Your task to perform on an android device: Open maps Image 0: 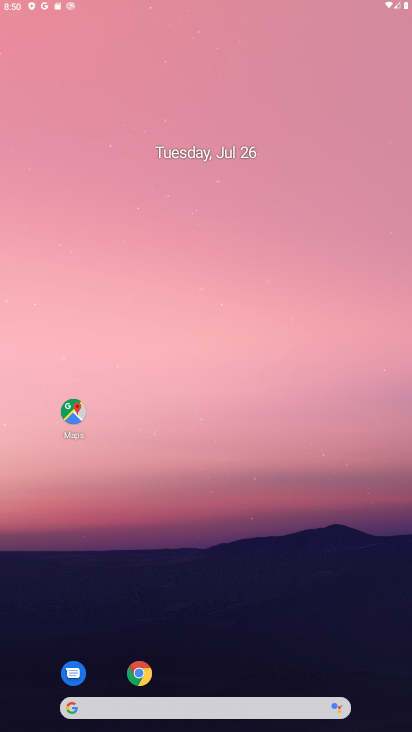
Step 0: press back button
Your task to perform on an android device: Open maps Image 1: 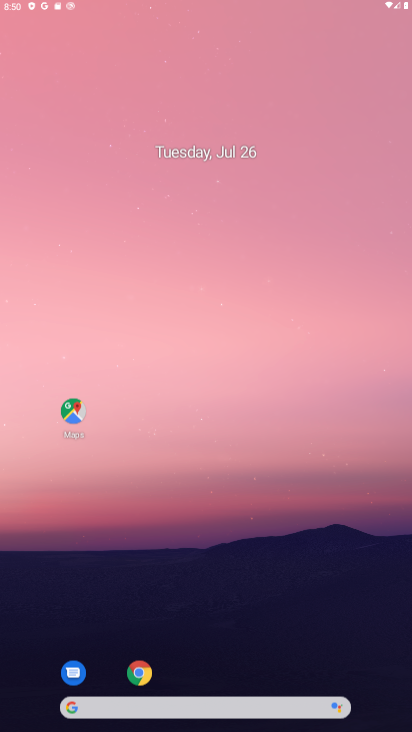
Step 1: drag from (229, 633) to (179, 86)
Your task to perform on an android device: Open maps Image 2: 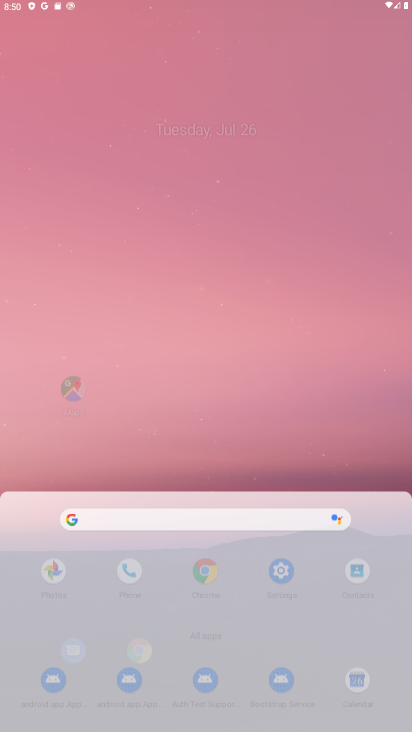
Step 2: drag from (265, 557) to (267, 185)
Your task to perform on an android device: Open maps Image 3: 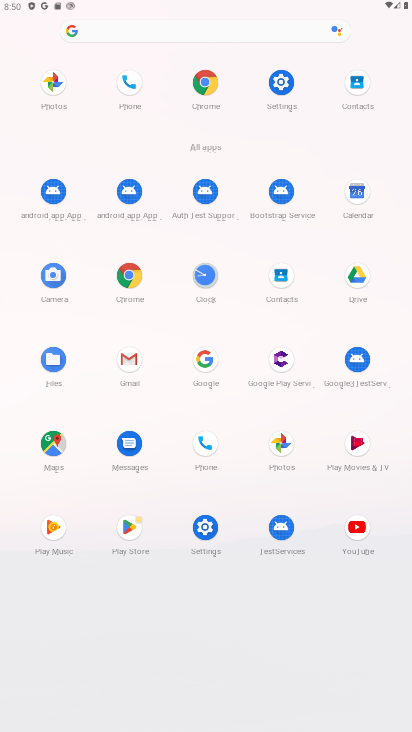
Step 3: click (46, 438)
Your task to perform on an android device: Open maps Image 4: 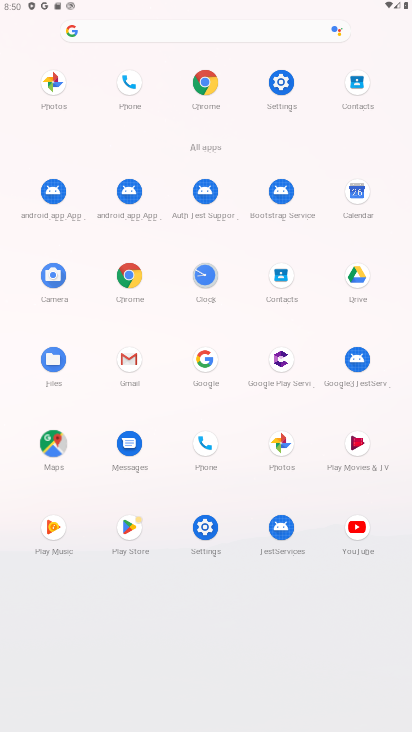
Step 4: click (52, 434)
Your task to perform on an android device: Open maps Image 5: 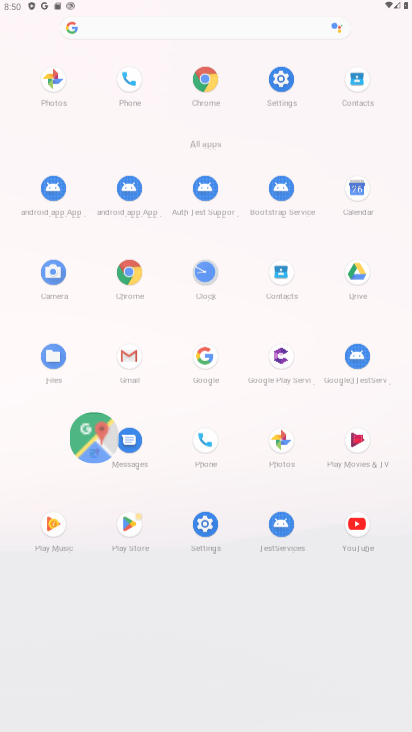
Step 5: click (60, 433)
Your task to perform on an android device: Open maps Image 6: 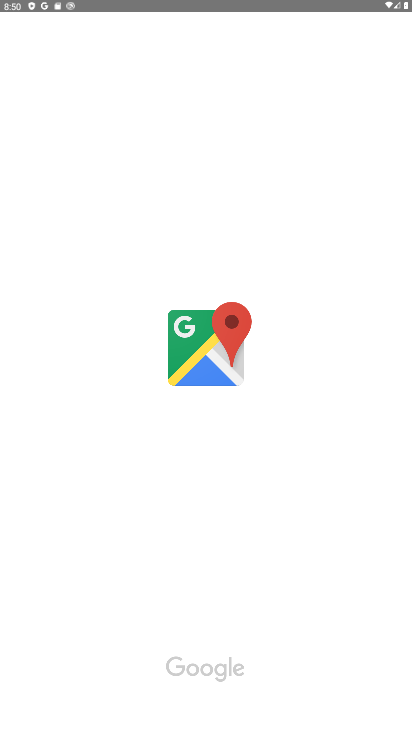
Step 6: click (65, 429)
Your task to perform on an android device: Open maps Image 7: 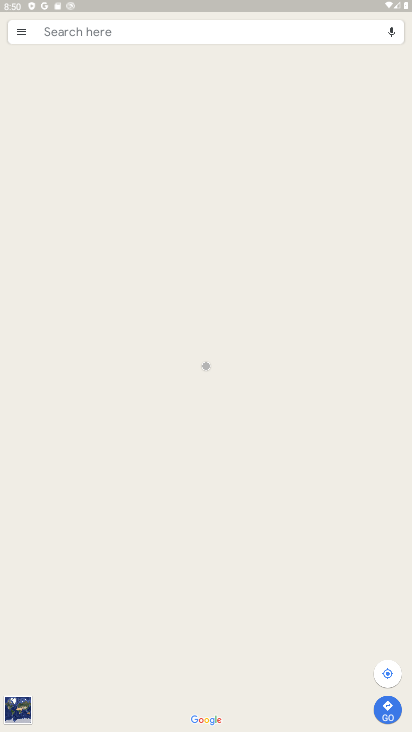
Step 7: task complete